Your task to perform on an android device: Open wifi settings Image 0: 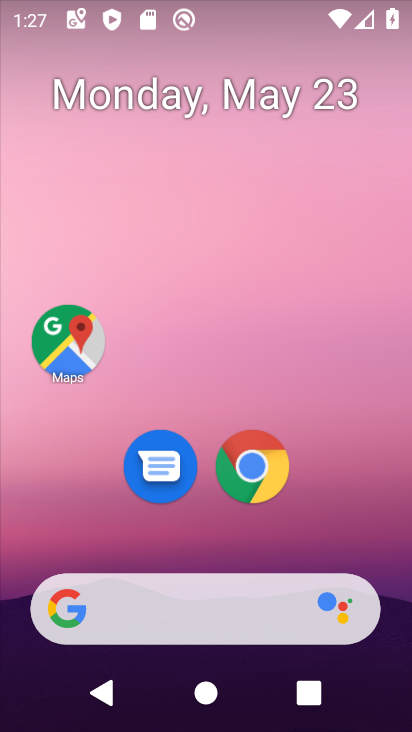
Step 0: drag from (340, 526) to (235, 203)
Your task to perform on an android device: Open wifi settings Image 1: 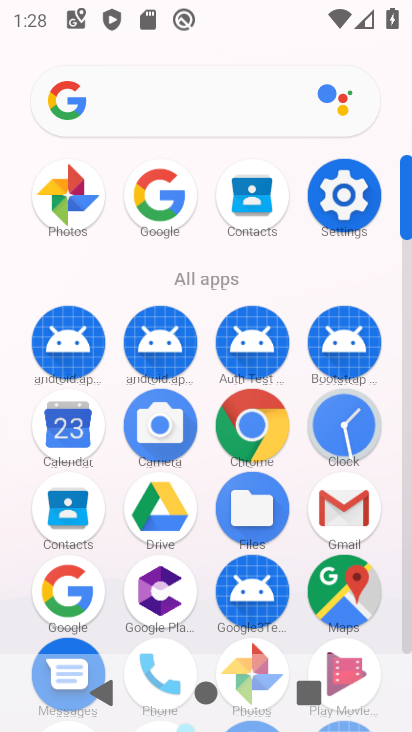
Step 1: click (345, 193)
Your task to perform on an android device: Open wifi settings Image 2: 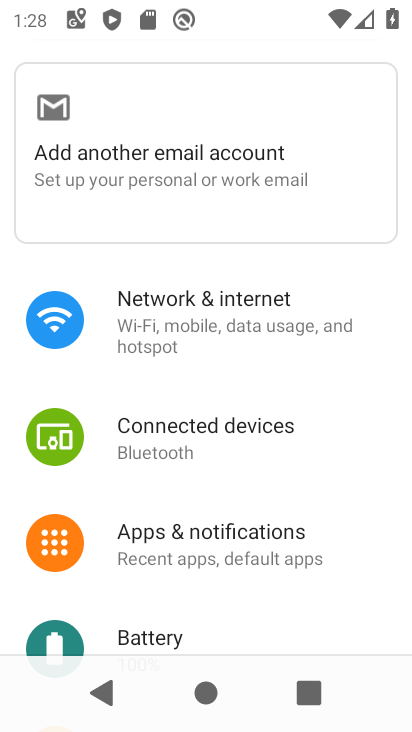
Step 2: drag from (214, 571) to (288, 485)
Your task to perform on an android device: Open wifi settings Image 3: 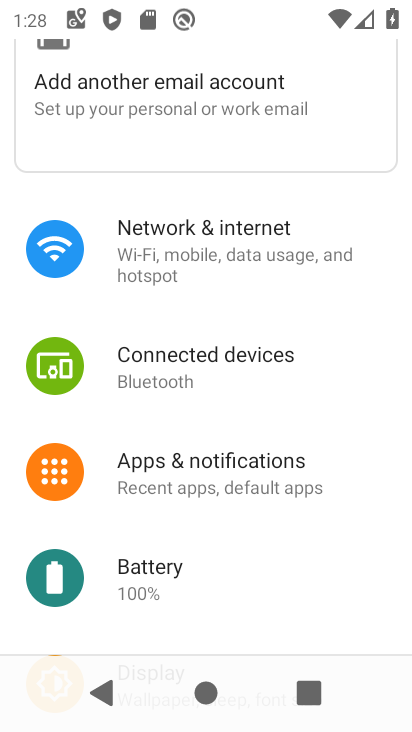
Step 3: drag from (220, 575) to (282, 479)
Your task to perform on an android device: Open wifi settings Image 4: 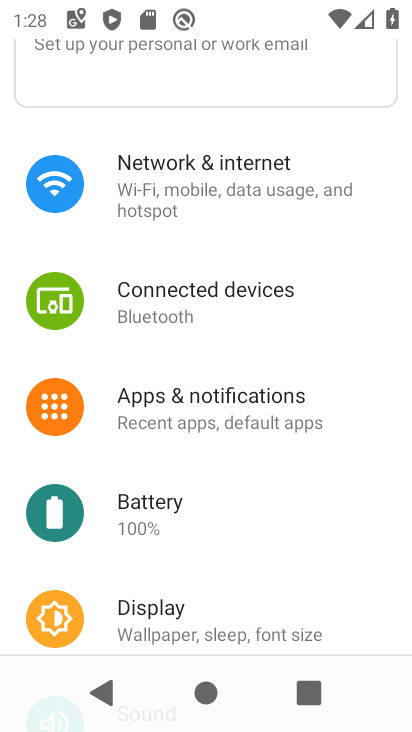
Step 4: click (175, 188)
Your task to perform on an android device: Open wifi settings Image 5: 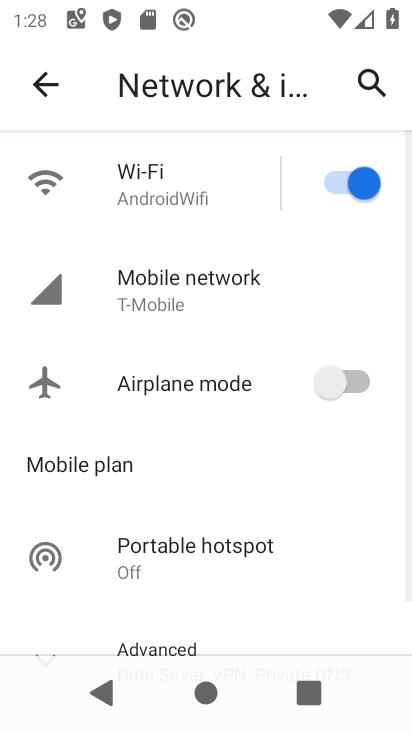
Step 5: click (140, 188)
Your task to perform on an android device: Open wifi settings Image 6: 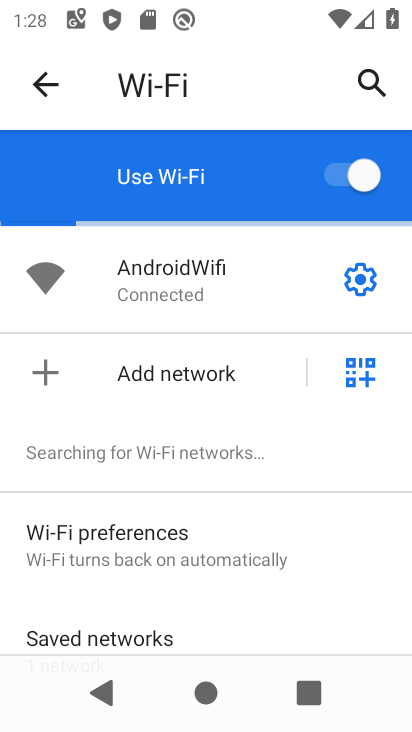
Step 6: click (361, 281)
Your task to perform on an android device: Open wifi settings Image 7: 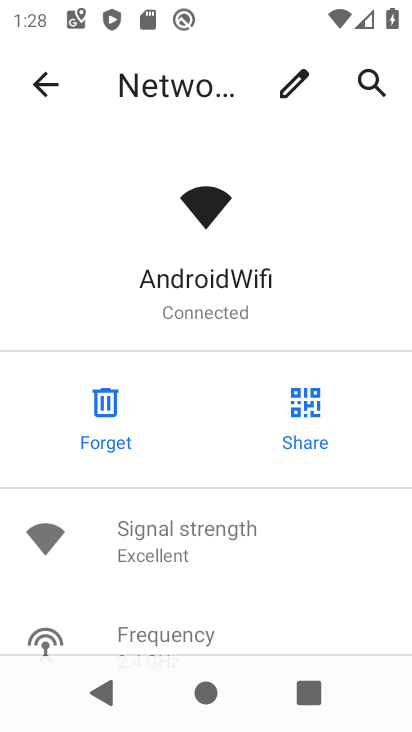
Step 7: task complete